Your task to perform on an android device: empty trash in the gmail app Image 0: 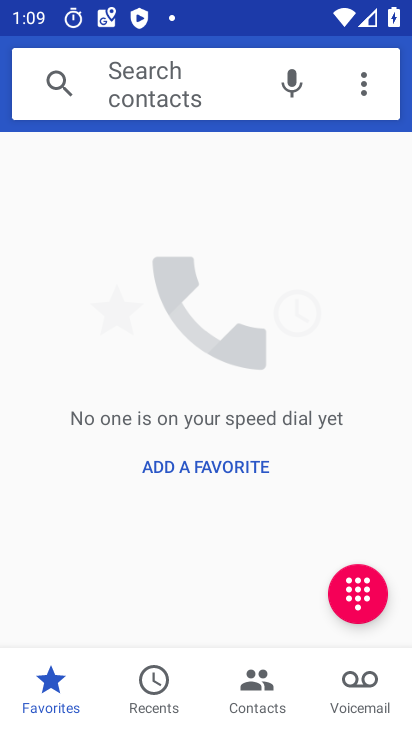
Step 0: press back button
Your task to perform on an android device: empty trash in the gmail app Image 1: 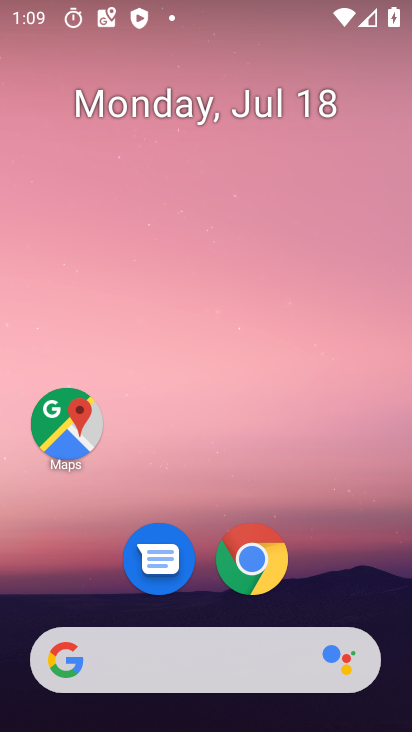
Step 1: drag from (106, 576) to (229, 64)
Your task to perform on an android device: empty trash in the gmail app Image 2: 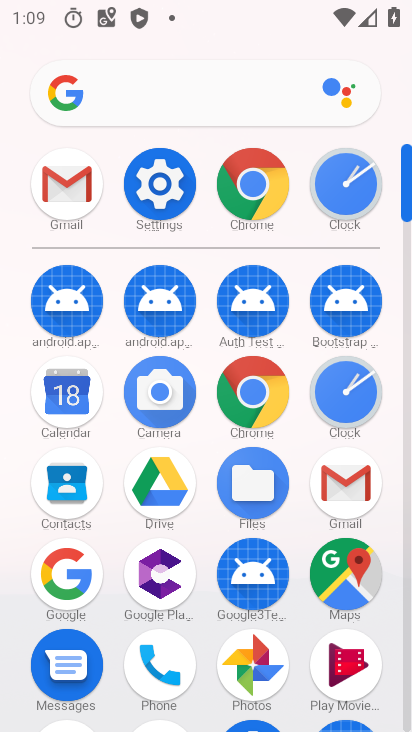
Step 2: click (52, 175)
Your task to perform on an android device: empty trash in the gmail app Image 3: 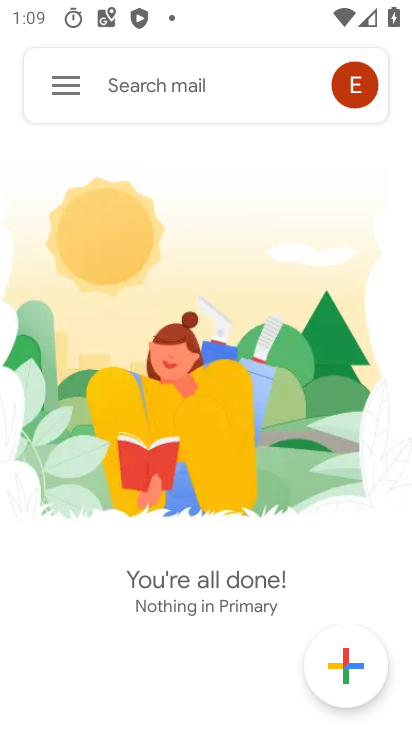
Step 3: click (71, 76)
Your task to perform on an android device: empty trash in the gmail app Image 4: 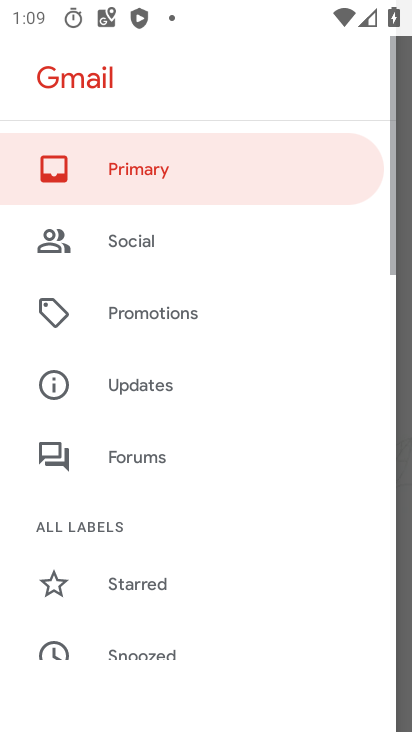
Step 4: drag from (189, 569) to (256, 164)
Your task to perform on an android device: empty trash in the gmail app Image 5: 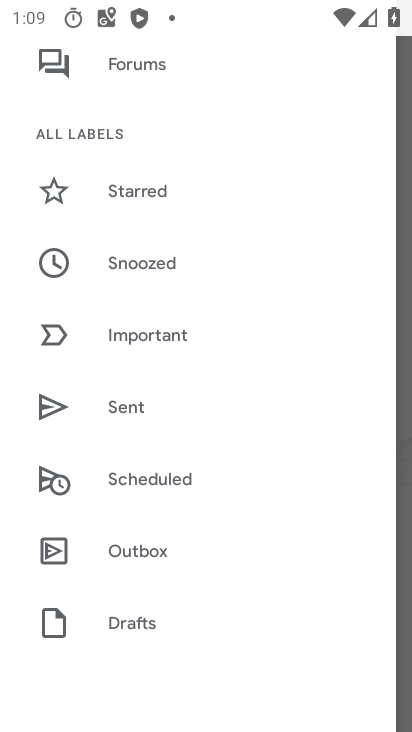
Step 5: drag from (153, 175) to (166, 715)
Your task to perform on an android device: empty trash in the gmail app Image 6: 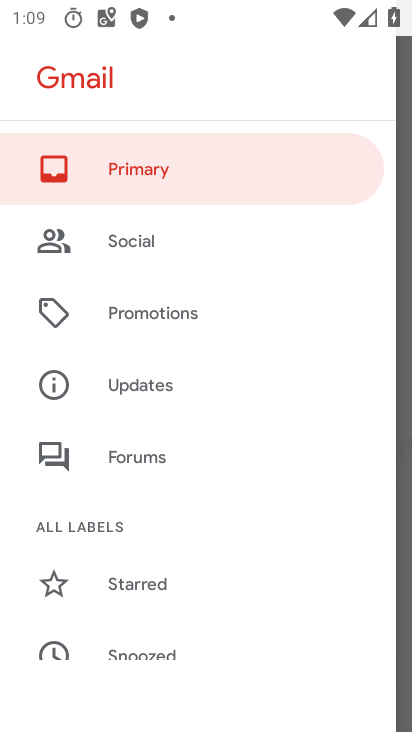
Step 6: drag from (141, 646) to (299, 38)
Your task to perform on an android device: empty trash in the gmail app Image 7: 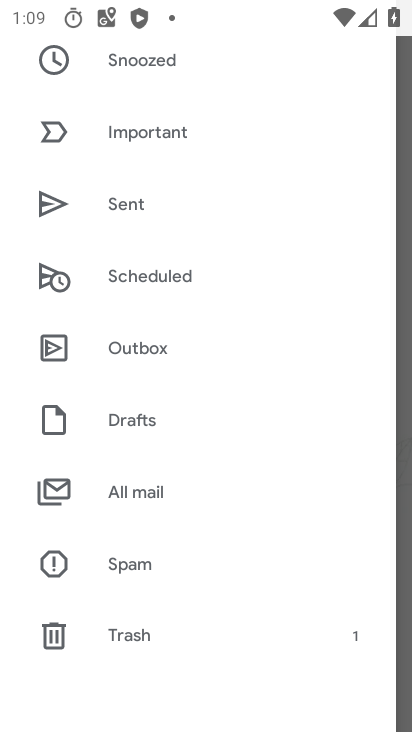
Step 7: click (130, 627)
Your task to perform on an android device: empty trash in the gmail app Image 8: 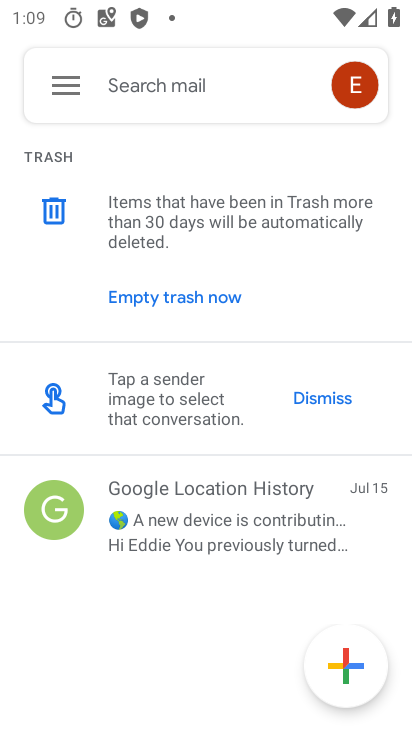
Step 8: click (136, 297)
Your task to perform on an android device: empty trash in the gmail app Image 9: 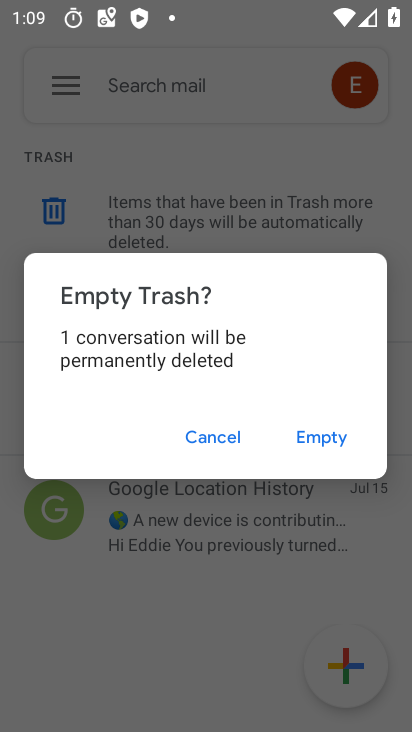
Step 9: click (312, 429)
Your task to perform on an android device: empty trash in the gmail app Image 10: 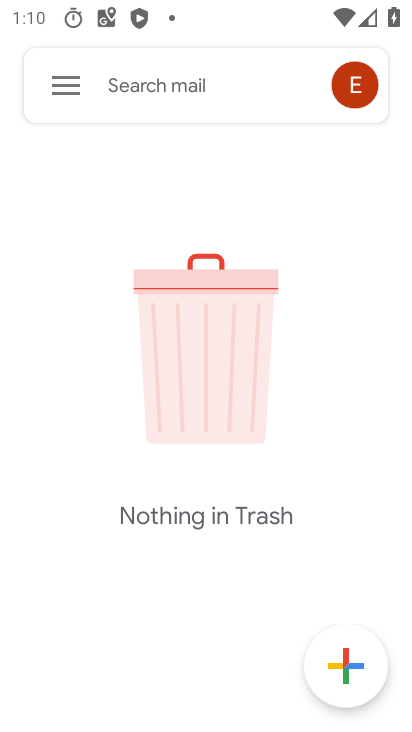
Step 10: task complete